Your task to perform on an android device: Go to notification settings Image 0: 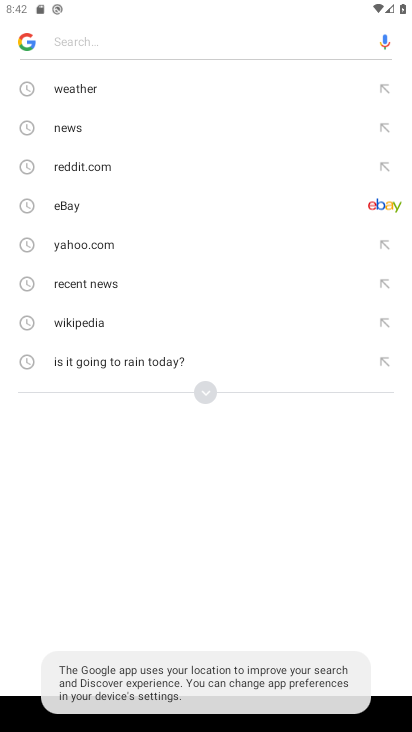
Step 0: press home button
Your task to perform on an android device: Go to notification settings Image 1: 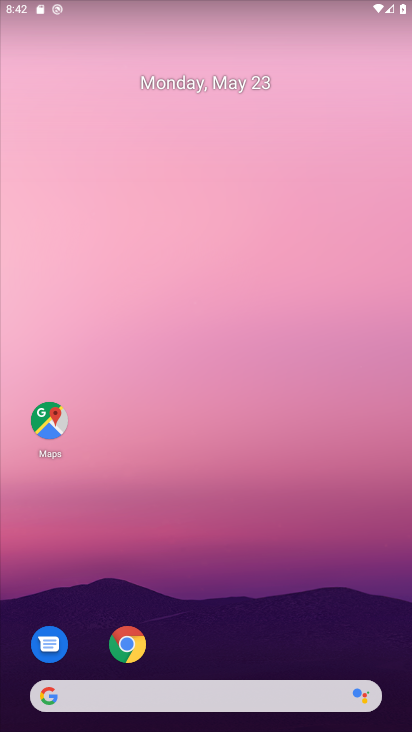
Step 1: drag from (348, 618) to (339, 115)
Your task to perform on an android device: Go to notification settings Image 2: 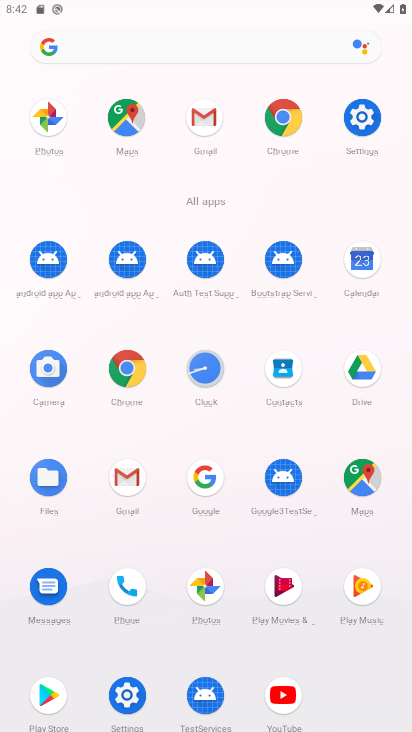
Step 2: click (360, 119)
Your task to perform on an android device: Go to notification settings Image 3: 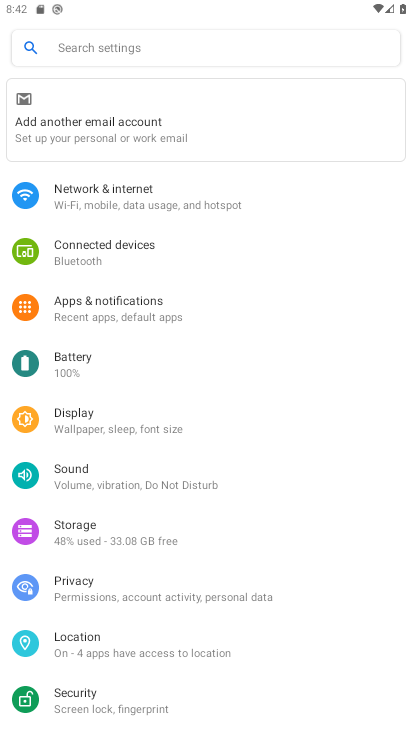
Step 3: click (163, 304)
Your task to perform on an android device: Go to notification settings Image 4: 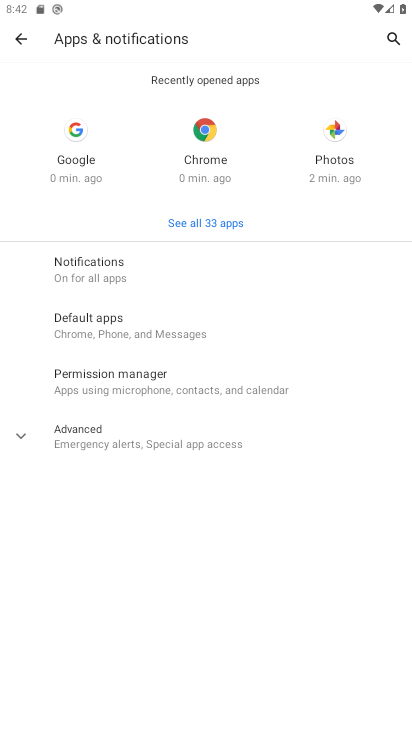
Step 4: click (135, 270)
Your task to perform on an android device: Go to notification settings Image 5: 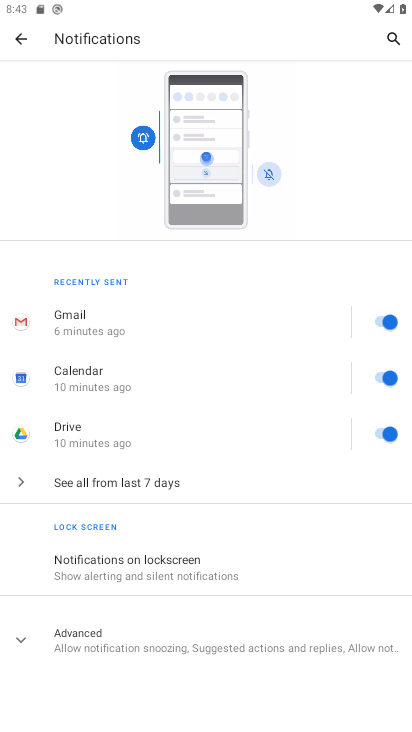
Step 5: click (171, 560)
Your task to perform on an android device: Go to notification settings Image 6: 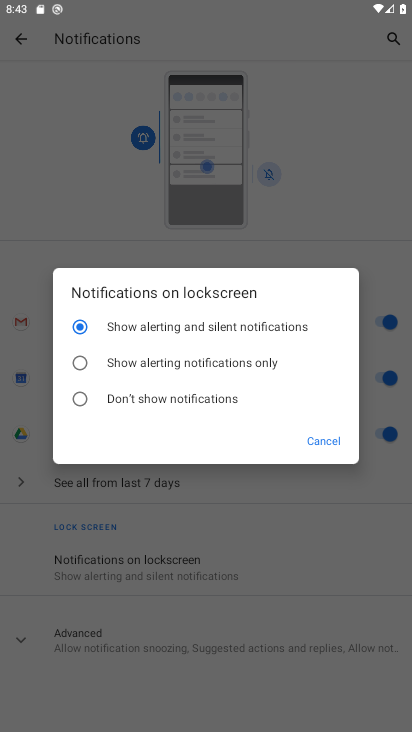
Step 6: task complete